Your task to perform on an android device: toggle location history Image 0: 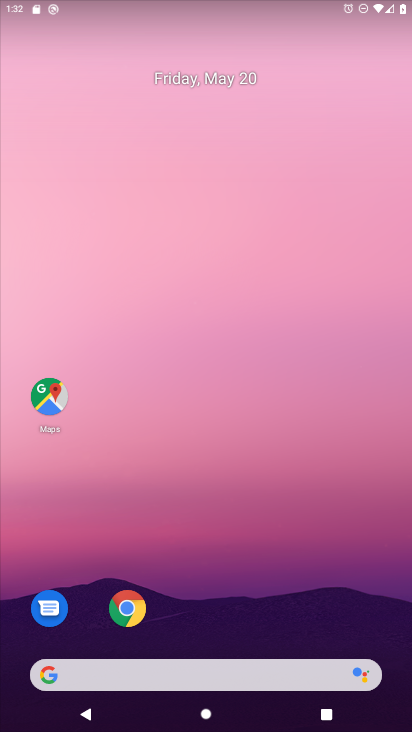
Step 0: press home button
Your task to perform on an android device: toggle location history Image 1: 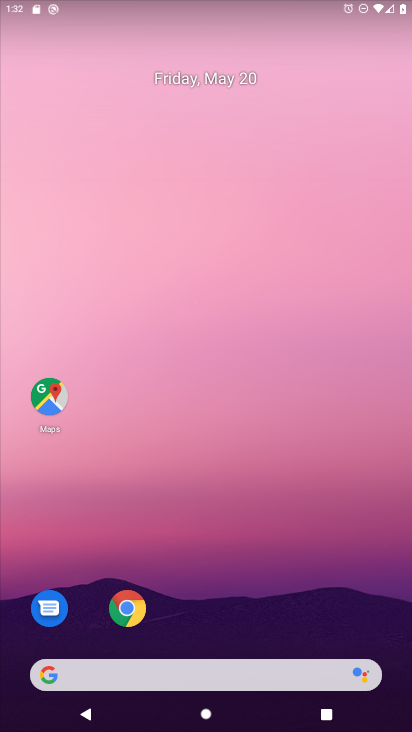
Step 1: click (57, 386)
Your task to perform on an android device: toggle location history Image 2: 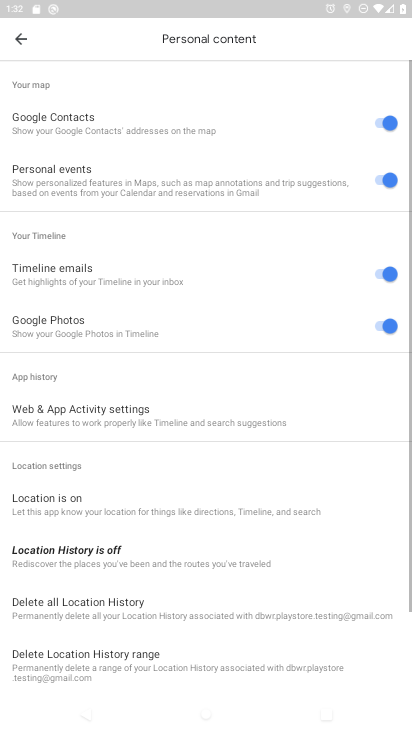
Step 2: click (15, 49)
Your task to perform on an android device: toggle location history Image 3: 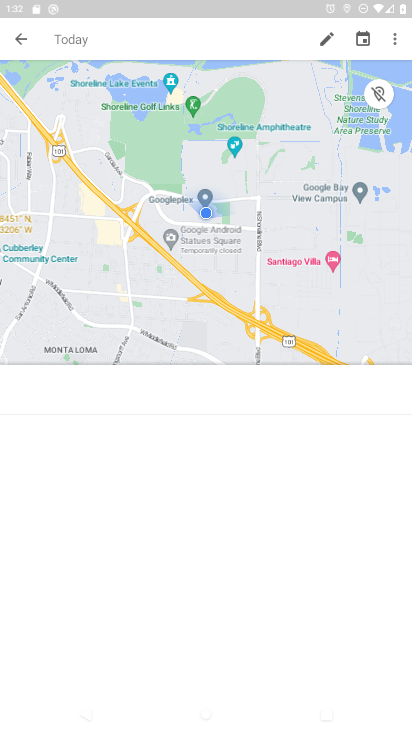
Step 3: click (15, 49)
Your task to perform on an android device: toggle location history Image 4: 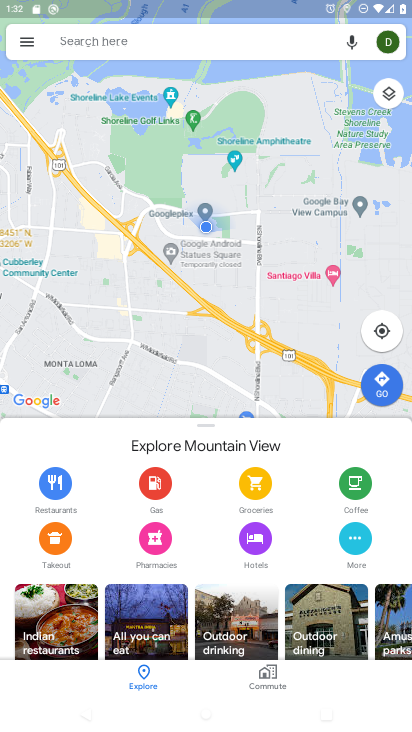
Step 4: click (28, 33)
Your task to perform on an android device: toggle location history Image 5: 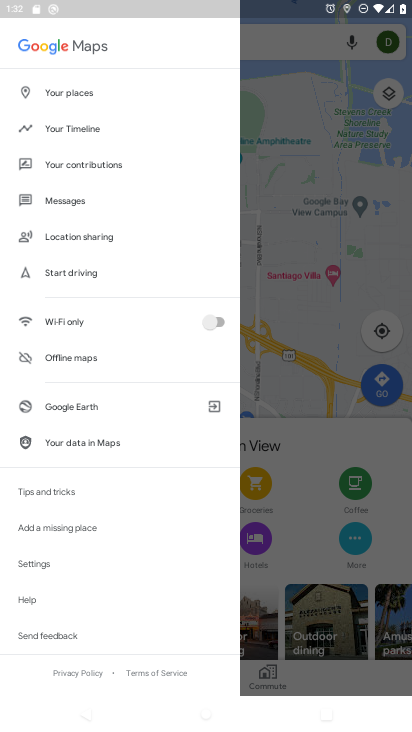
Step 5: click (54, 126)
Your task to perform on an android device: toggle location history Image 6: 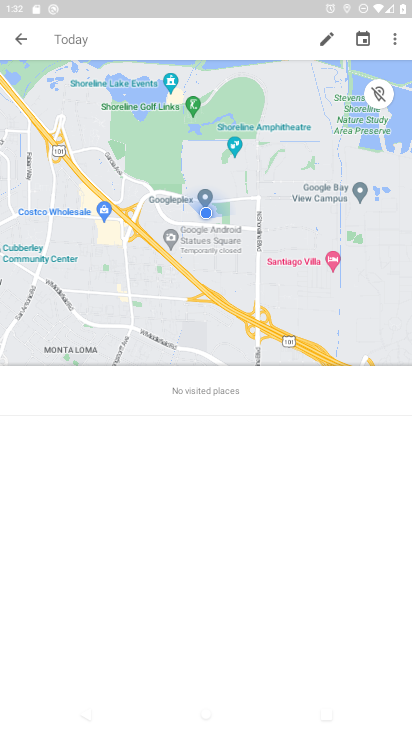
Step 6: click (391, 42)
Your task to perform on an android device: toggle location history Image 7: 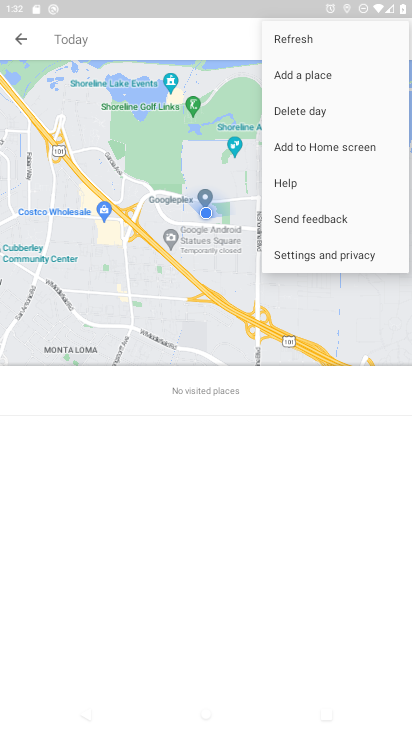
Step 7: click (325, 253)
Your task to perform on an android device: toggle location history Image 8: 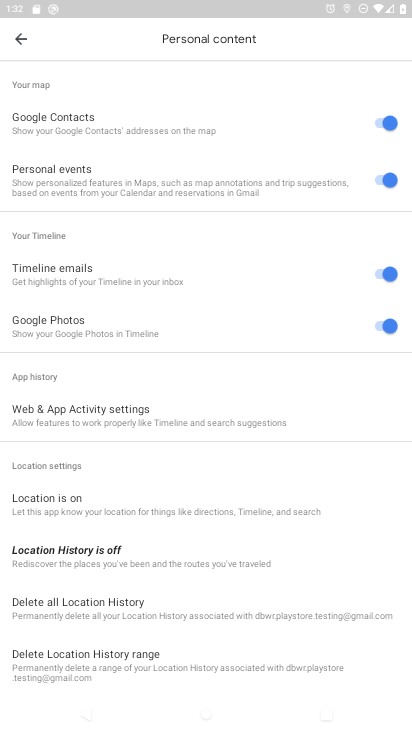
Step 8: click (47, 555)
Your task to perform on an android device: toggle location history Image 9: 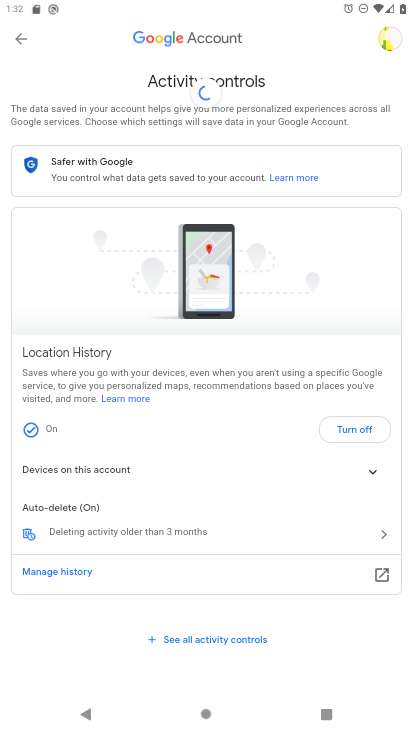
Step 9: click (363, 431)
Your task to perform on an android device: toggle location history Image 10: 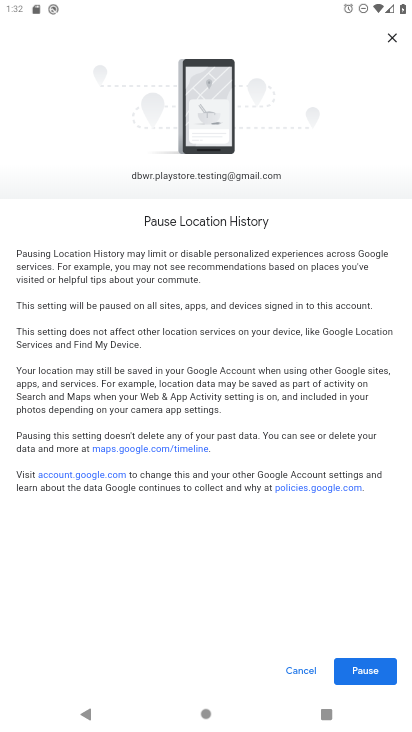
Step 10: click (369, 671)
Your task to perform on an android device: toggle location history Image 11: 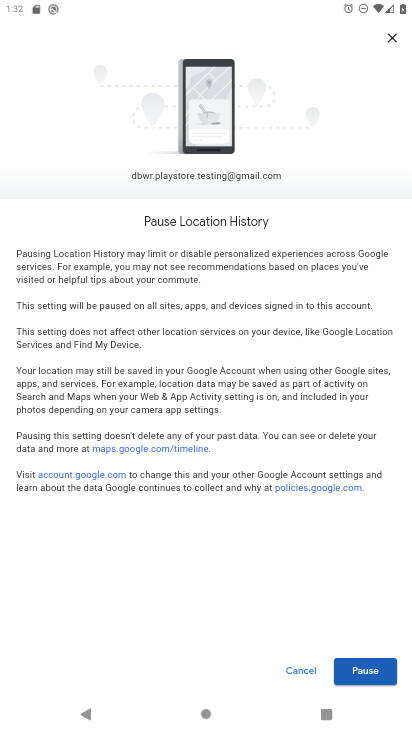
Step 11: click (368, 671)
Your task to perform on an android device: toggle location history Image 12: 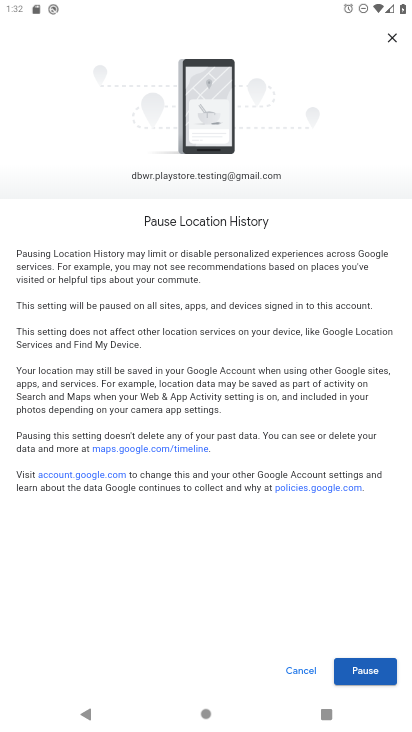
Step 12: click (367, 671)
Your task to perform on an android device: toggle location history Image 13: 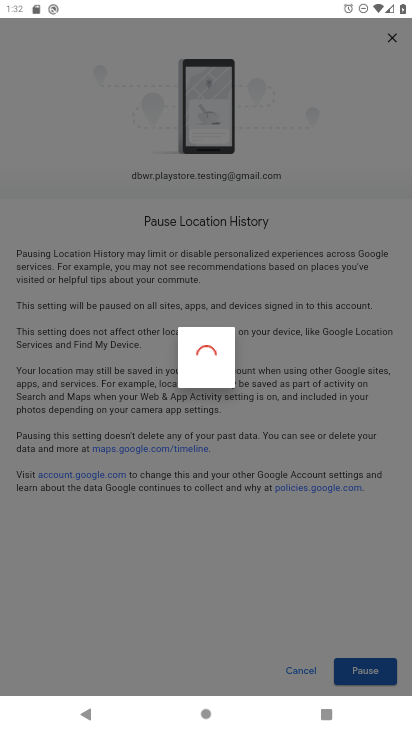
Step 13: click (367, 671)
Your task to perform on an android device: toggle location history Image 14: 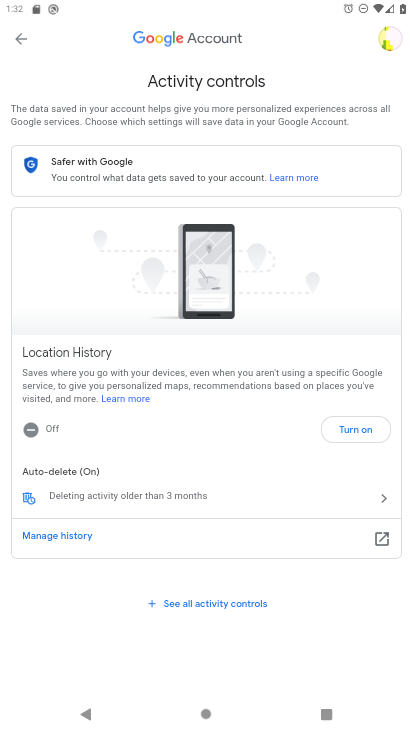
Step 14: task complete